Your task to perform on an android device: open the mobile data screen to see how much data has been used Image 0: 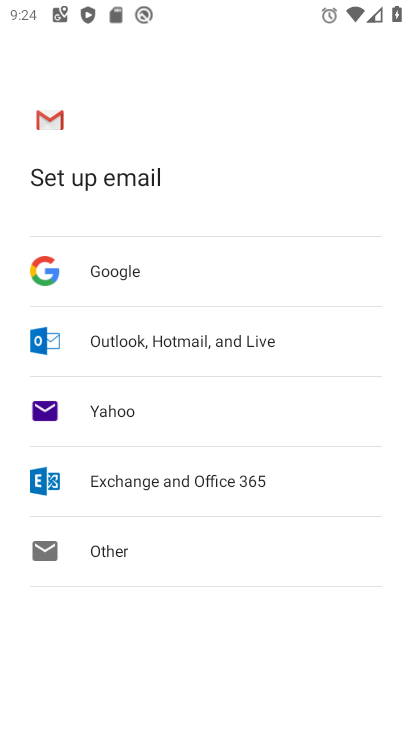
Step 0: press home button
Your task to perform on an android device: open the mobile data screen to see how much data has been used Image 1: 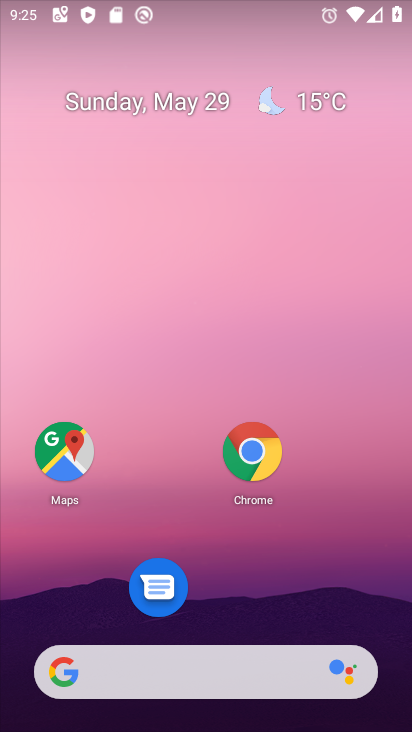
Step 1: drag from (274, 9) to (256, 461)
Your task to perform on an android device: open the mobile data screen to see how much data has been used Image 2: 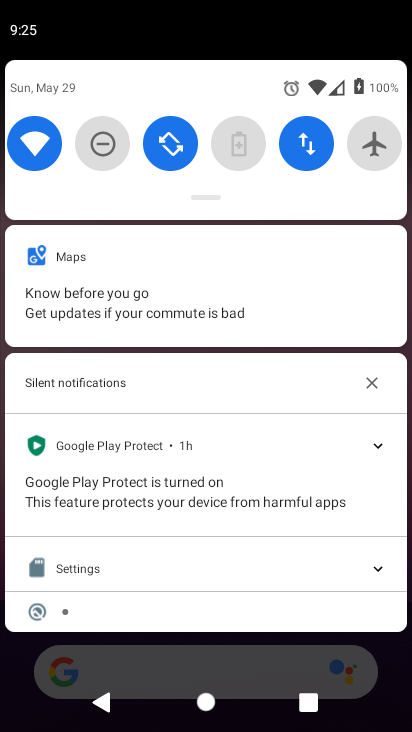
Step 2: click (302, 129)
Your task to perform on an android device: open the mobile data screen to see how much data has been used Image 3: 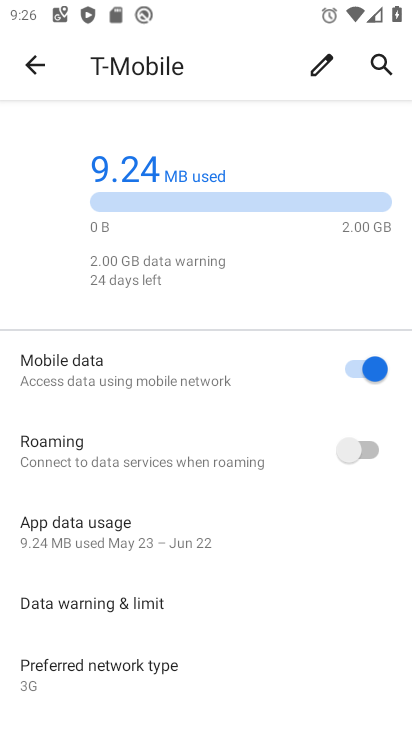
Step 3: task complete